Your task to perform on an android device: Open maps Image 0: 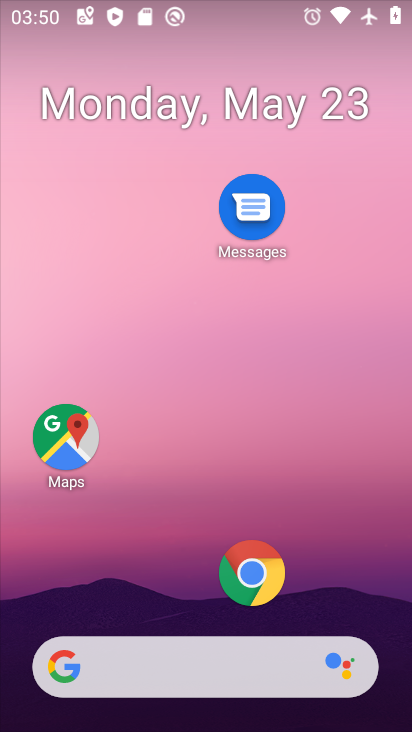
Step 0: drag from (192, 563) to (202, 144)
Your task to perform on an android device: Open maps Image 1: 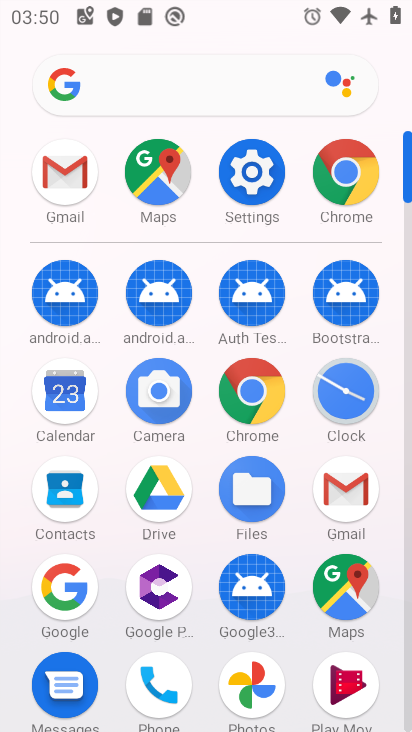
Step 1: click (352, 599)
Your task to perform on an android device: Open maps Image 2: 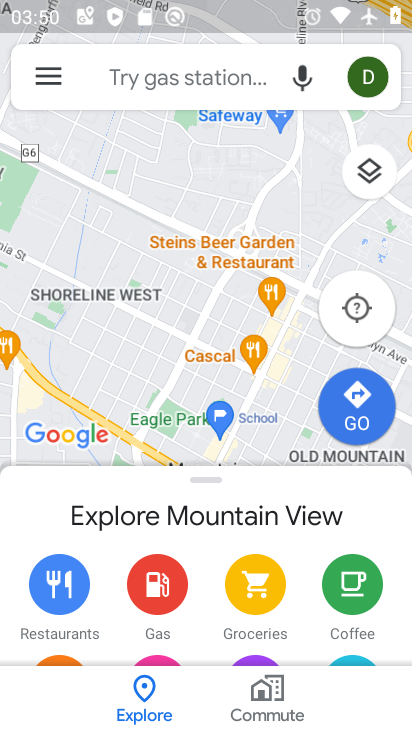
Step 2: task complete